Your task to perform on an android device: turn on translation in the chrome app Image 0: 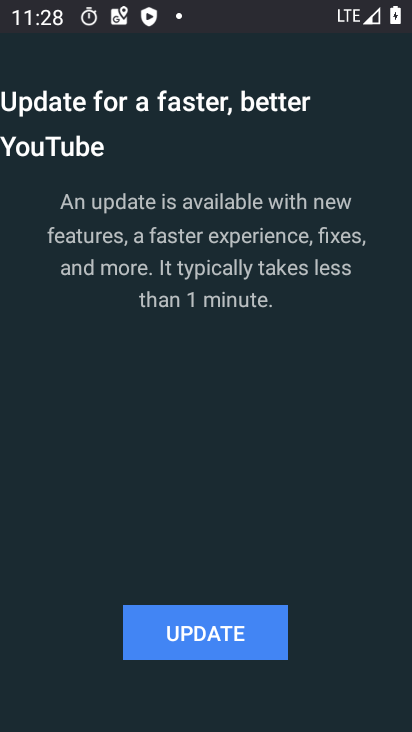
Step 0: press home button
Your task to perform on an android device: turn on translation in the chrome app Image 1: 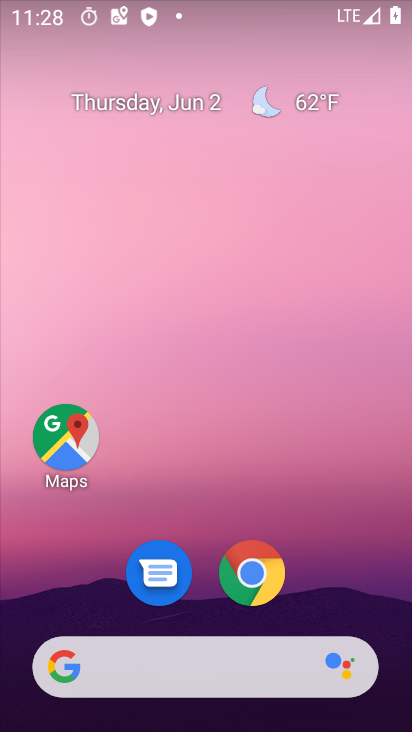
Step 1: drag from (273, 614) to (293, 108)
Your task to perform on an android device: turn on translation in the chrome app Image 2: 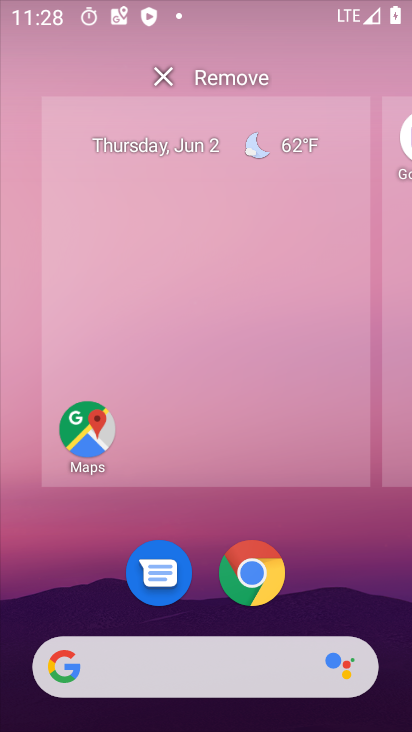
Step 2: drag from (299, 669) to (270, 146)
Your task to perform on an android device: turn on translation in the chrome app Image 3: 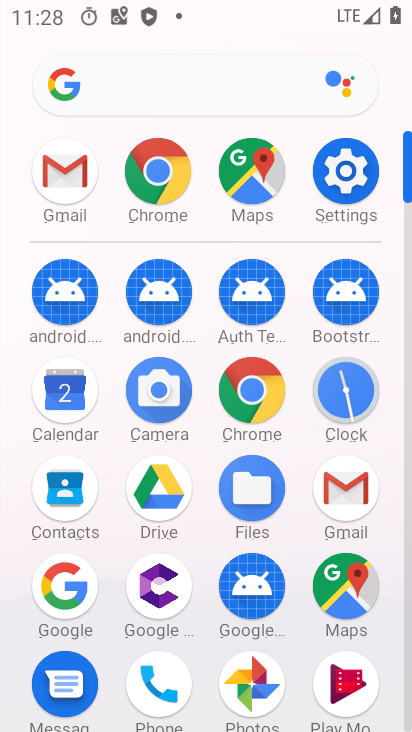
Step 3: click (244, 398)
Your task to perform on an android device: turn on translation in the chrome app Image 4: 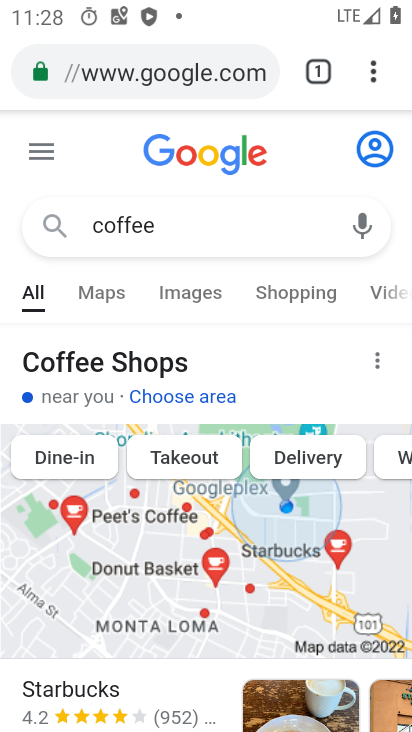
Step 4: drag from (382, 66) to (129, 576)
Your task to perform on an android device: turn on translation in the chrome app Image 5: 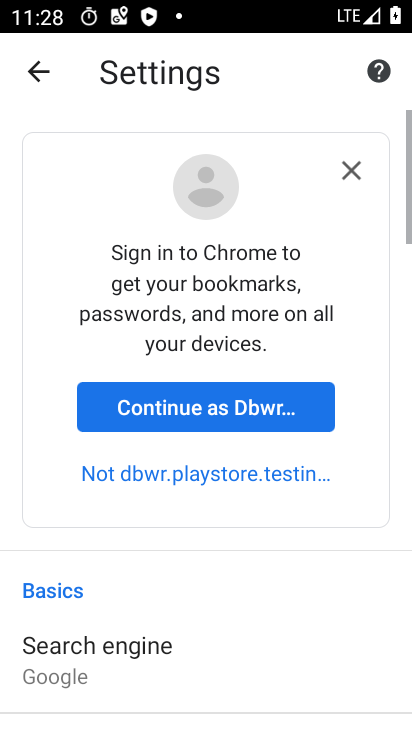
Step 5: drag from (134, 635) to (202, 14)
Your task to perform on an android device: turn on translation in the chrome app Image 6: 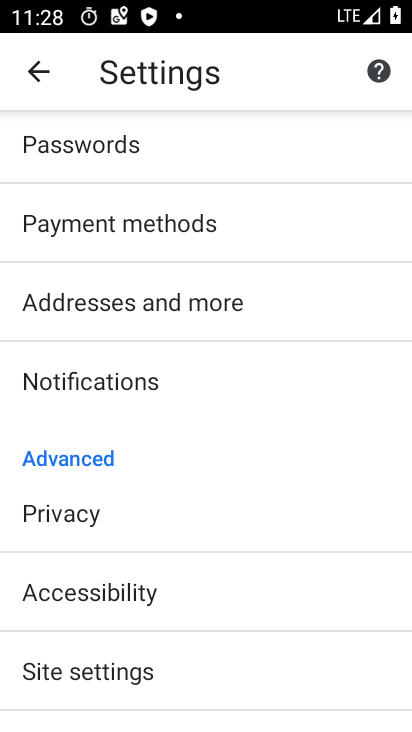
Step 6: drag from (107, 646) to (133, 291)
Your task to perform on an android device: turn on translation in the chrome app Image 7: 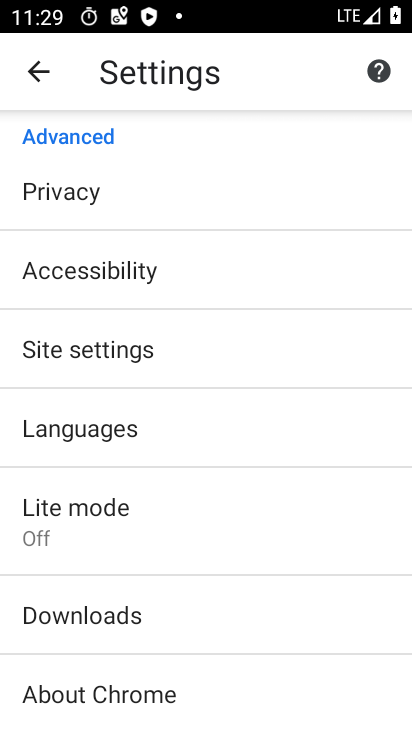
Step 7: click (121, 432)
Your task to perform on an android device: turn on translation in the chrome app Image 8: 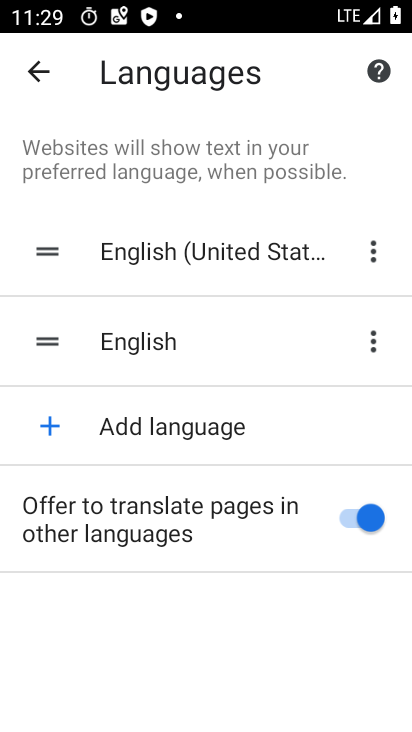
Step 8: task complete